Your task to perform on an android device: refresh tabs in the chrome app Image 0: 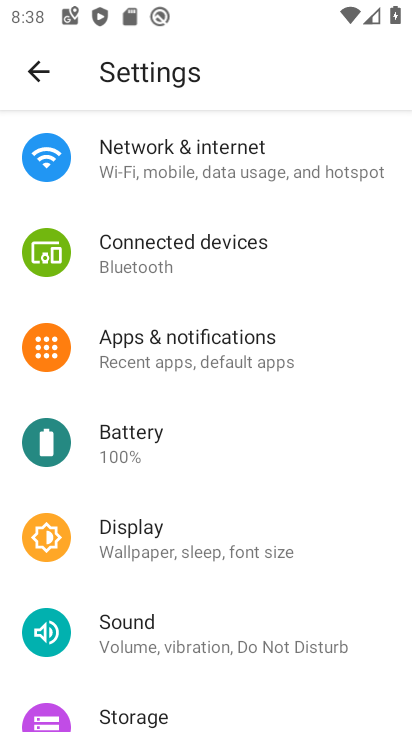
Step 0: press home button
Your task to perform on an android device: refresh tabs in the chrome app Image 1: 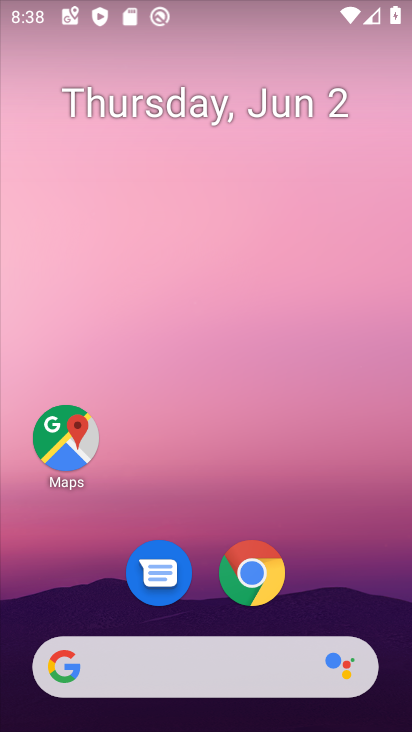
Step 1: click (261, 571)
Your task to perform on an android device: refresh tabs in the chrome app Image 2: 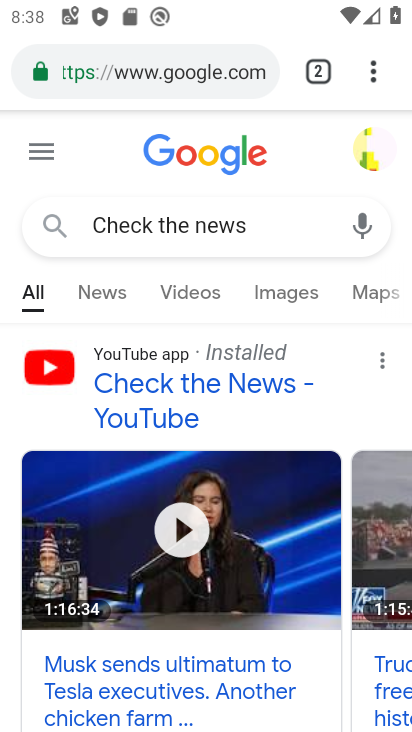
Step 2: click (376, 72)
Your task to perform on an android device: refresh tabs in the chrome app Image 3: 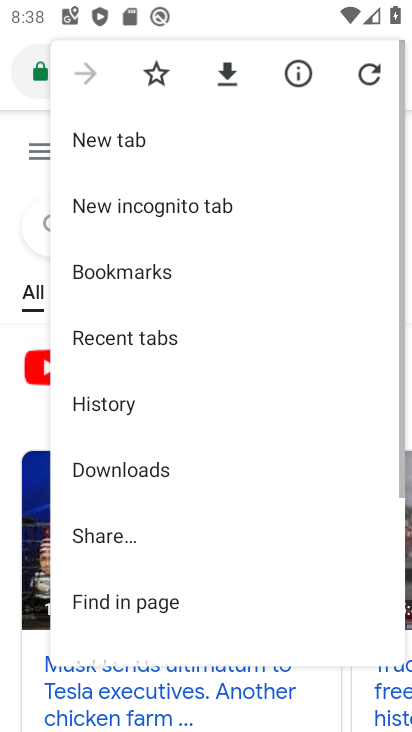
Step 3: click (376, 72)
Your task to perform on an android device: refresh tabs in the chrome app Image 4: 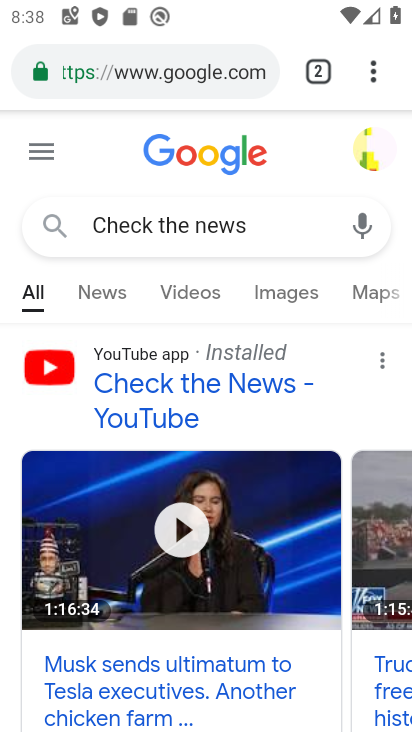
Step 4: task complete